Your task to perform on an android device: Open Yahoo.com Image 0: 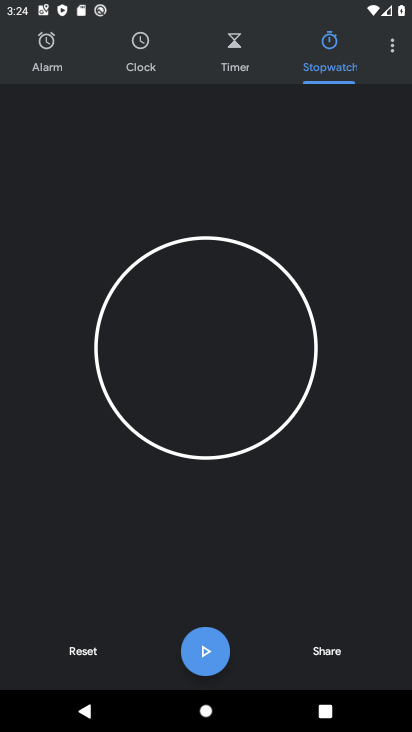
Step 0: press home button
Your task to perform on an android device: Open Yahoo.com Image 1: 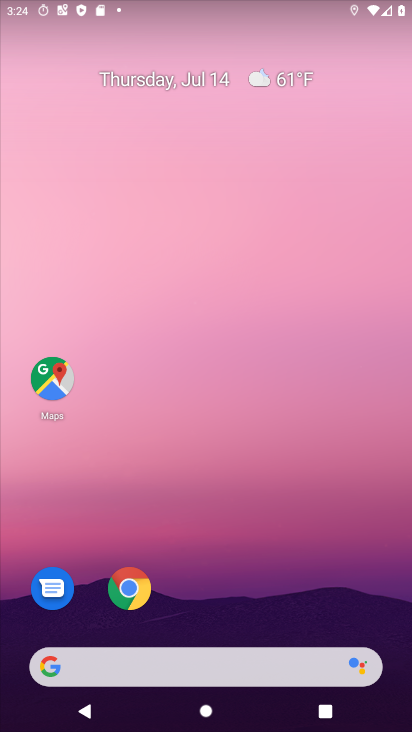
Step 1: click (129, 589)
Your task to perform on an android device: Open Yahoo.com Image 2: 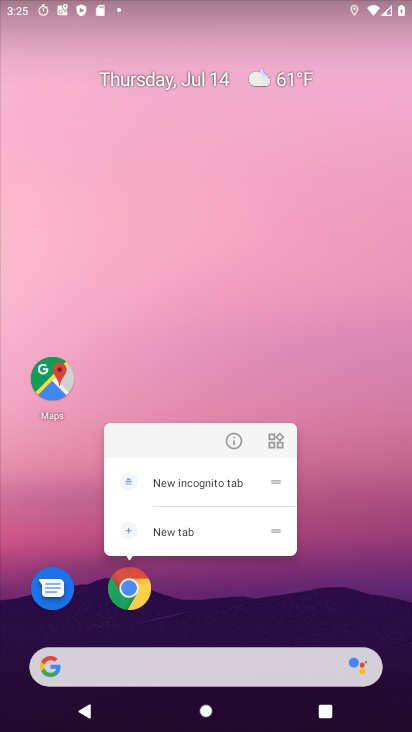
Step 2: click (129, 589)
Your task to perform on an android device: Open Yahoo.com Image 3: 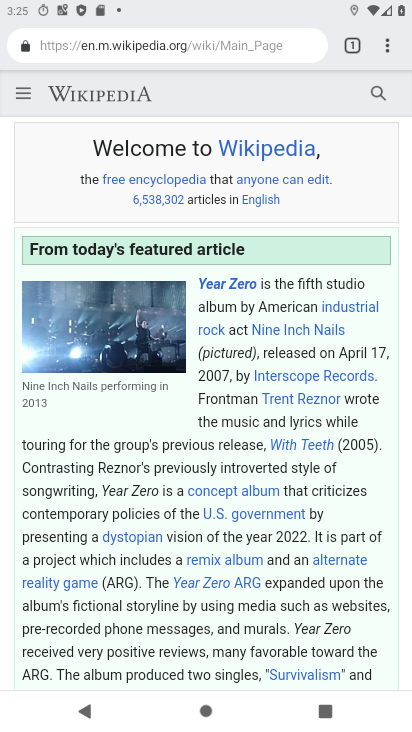
Step 3: click (253, 53)
Your task to perform on an android device: Open Yahoo.com Image 4: 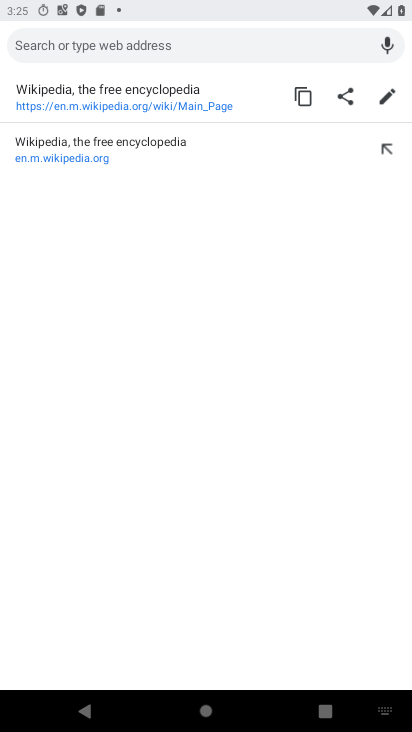
Step 4: type "Yahoo.com"
Your task to perform on an android device: Open Yahoo.com Image 5: 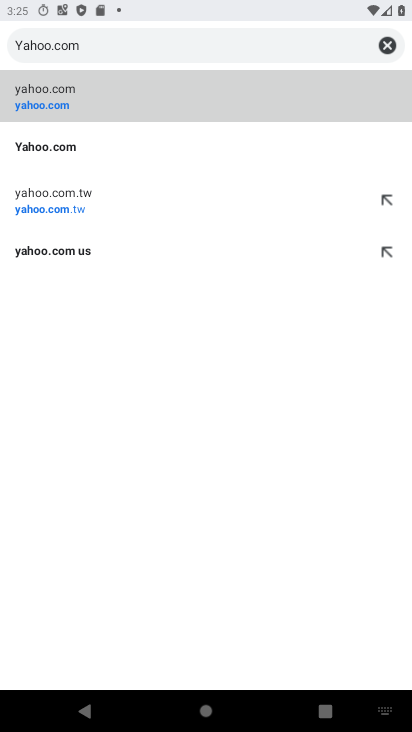
Step 5: click (27, 145)
Your task to perform on an android device: Open Yahoo.com Image 6: 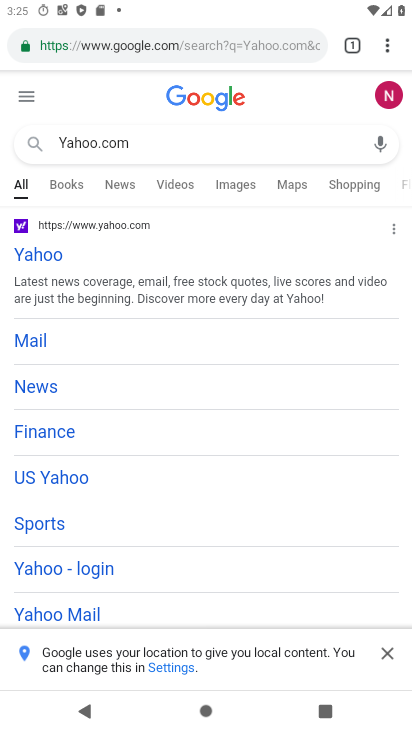
Step 6: click (33, 248)
Your task to perform on an android device: Open Yahoo.com Image 7: 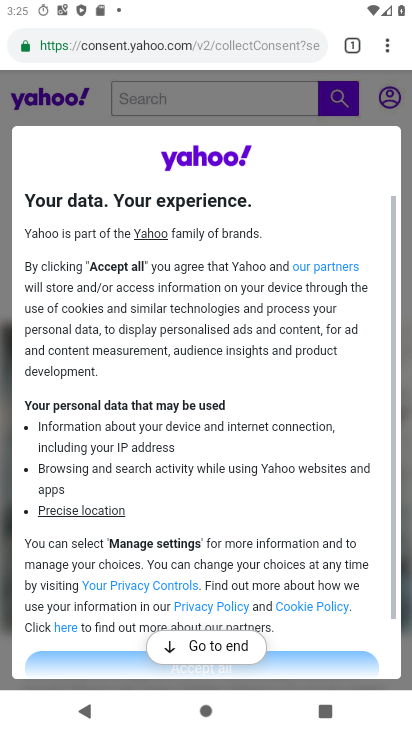
Step 7: click (194, 646)
Your task to perform on an android device: Open Yahoo.com Image 8: 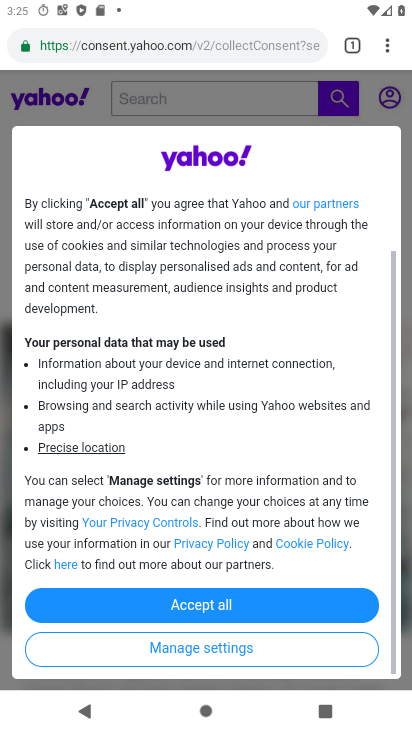
Step 8: click (201, 611)
Your task to perform on an android device: Open Yahoo.com Image 9: 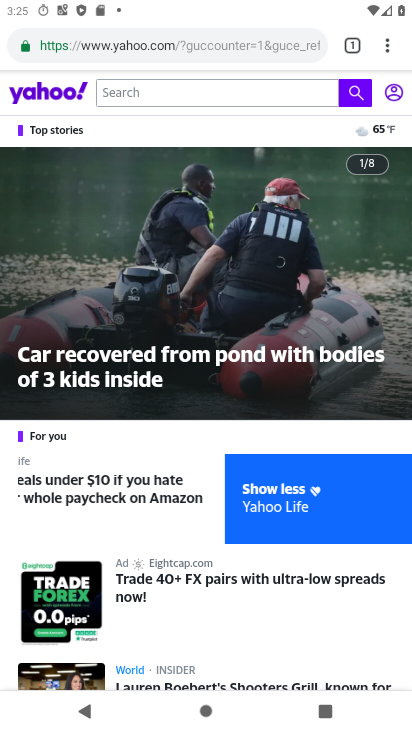
Step 9: task complete